Your task to perform on an android device: When is my next meeting? Image 0: 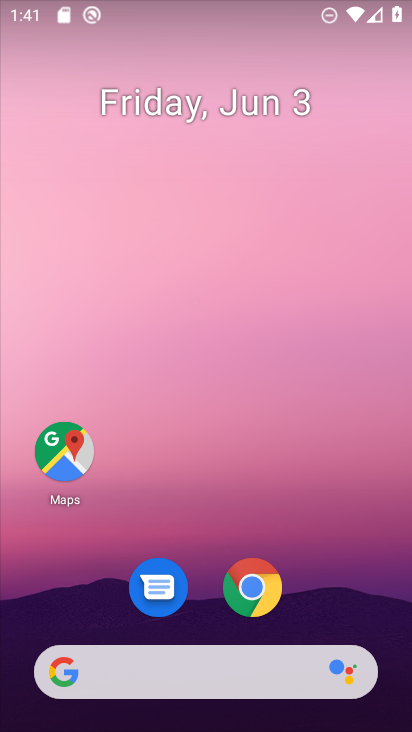
Step 0: drag from (353, 622) to (331, 65)
Your task to perform on an android device: When is my next meeting? Image 1: 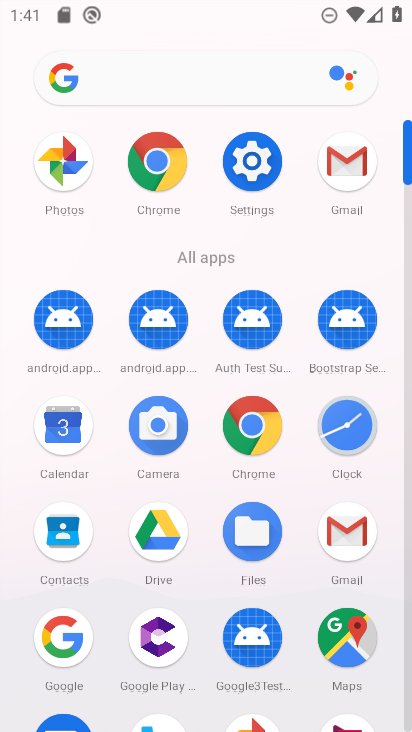
Step 1: click (61, 430)
Your task to perform on an android device: When is my next meeting? Image 2: 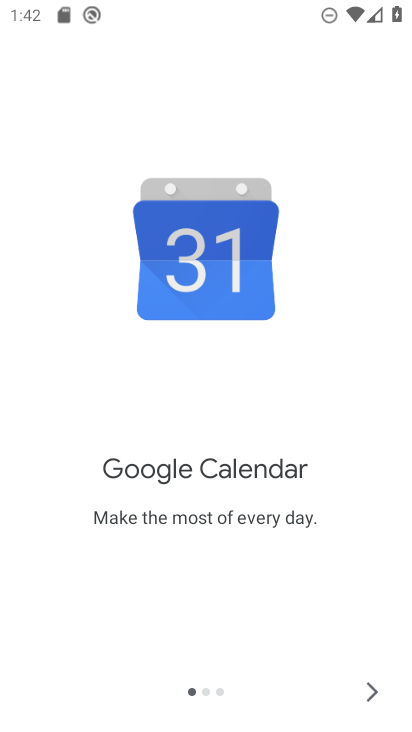
Step 2: click (366, 687)
Your task to perform on an android device: When is my next meeting? Image 3: 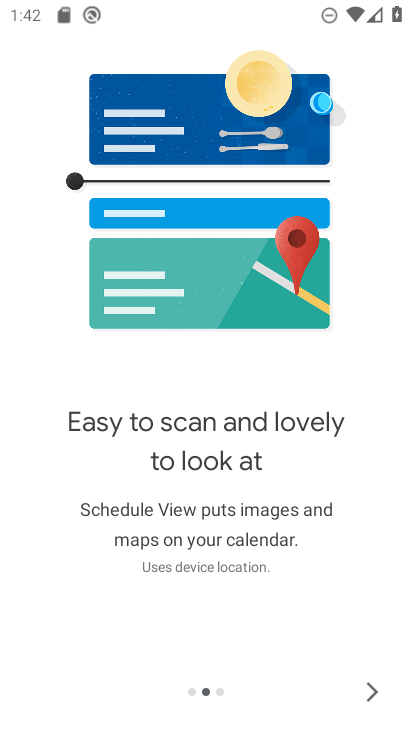
Step 3: click (369, 697)
Your task to perform on an android device: When is my next meeting? Image 4: 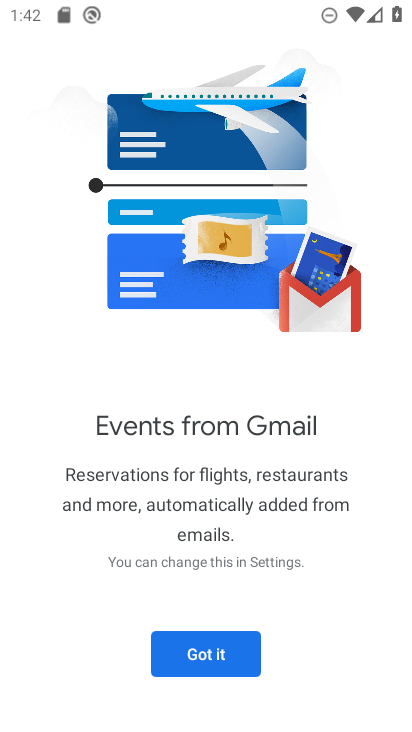
Step 4: click (211, 660)
Your task to perform on an android device: When is my next meeting? Image 5: 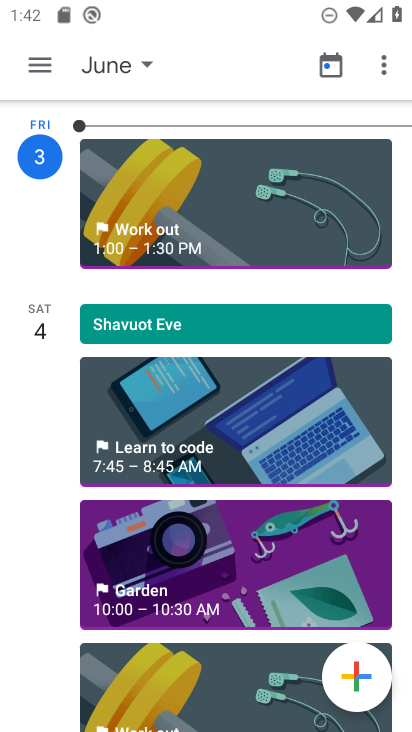
Step 5: click (109, 73)
Your task to perform on an android device: When is my next meeting? Image 6: 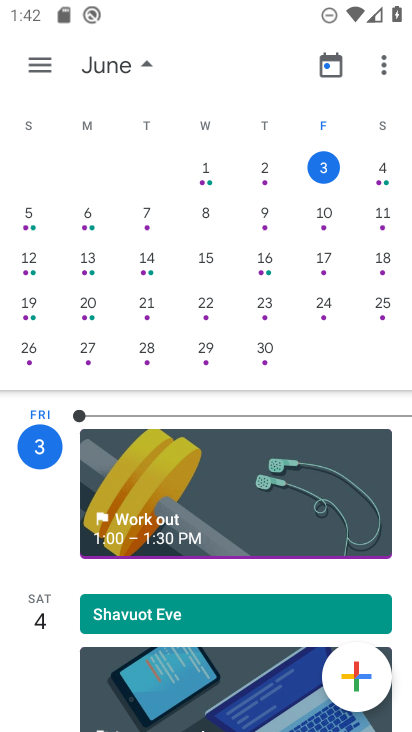
Step 6: click (321, 166)
Your task to perform on an android device: When is my next meeting? Image 7: 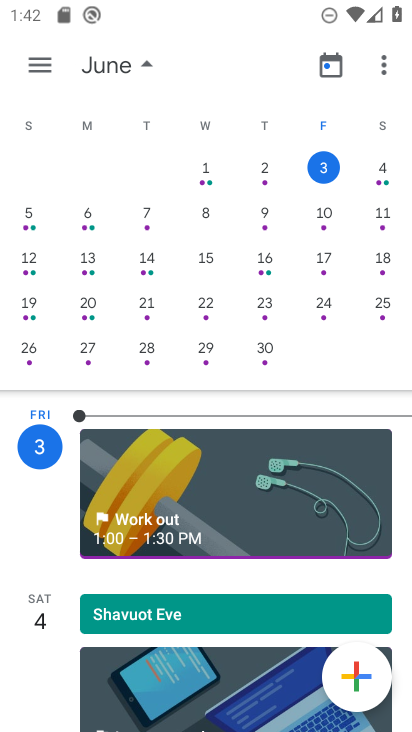
Step 7: task complete